Your task to perform on an android device: turn off wifi Image 0: 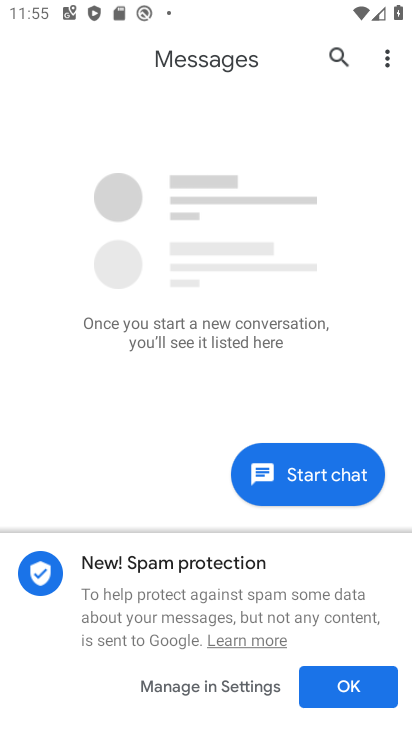
Step 0: press home button
Your task to perform on an android device: turn off wifi Image 1: 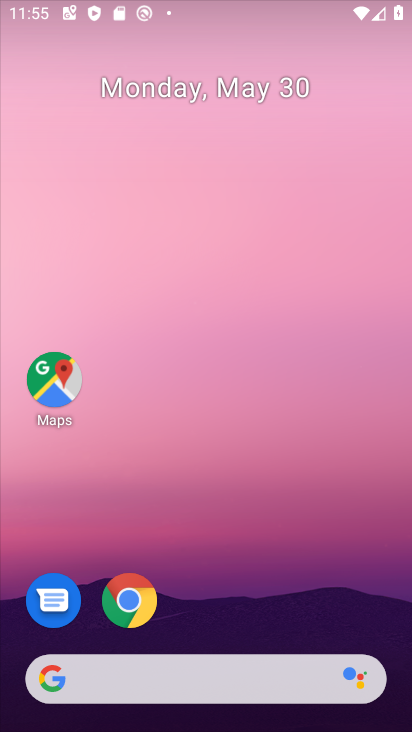
Step 1: drag from (210, 725) to (212, 574)
Your task to perform on an android device: turn off wifi Image 2: 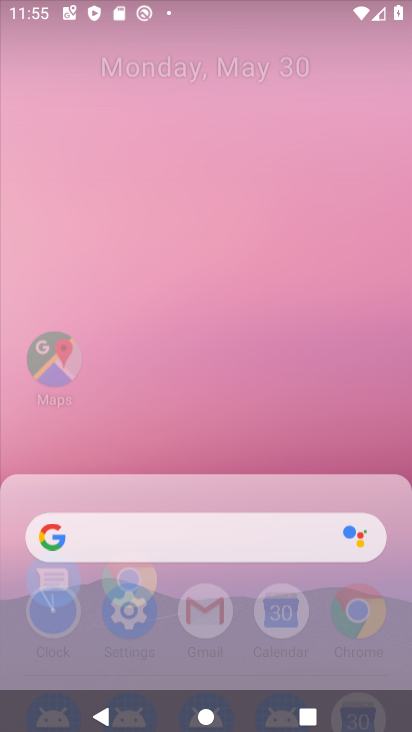
Step 2: drag from (219, 209) to (219, 160)
Your task to perform on an android device: turn off wifi Image 3: 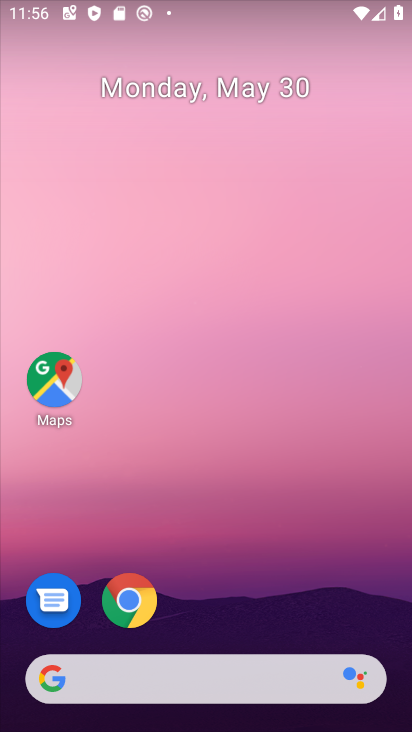
Step 3: drag from (222, 728) to (225, 38)
Your task to perform on an android device: turn off wifi Image 4: 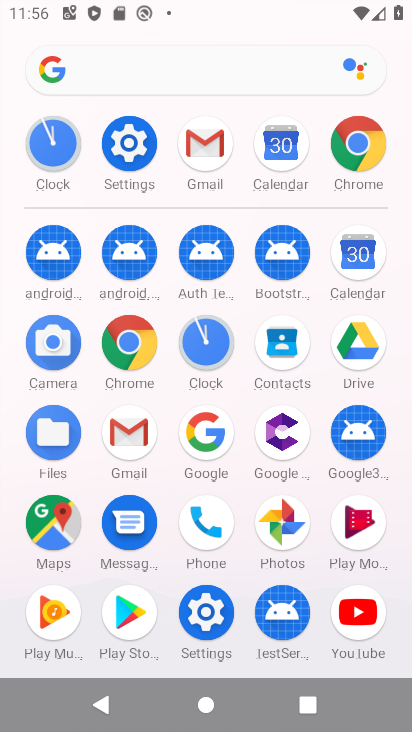
Step 4: click (132, 144)
Your task to perform on an android device: turn off wifi Image 5: 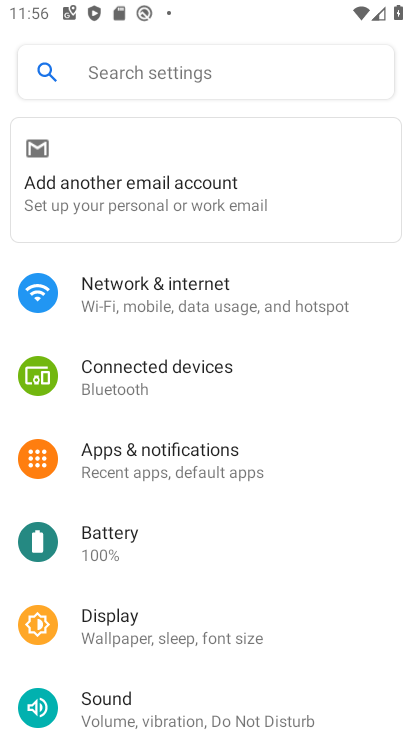
Step 5: click (142, 296)
Your task to perform on an android device: turn off wifi Image 6: 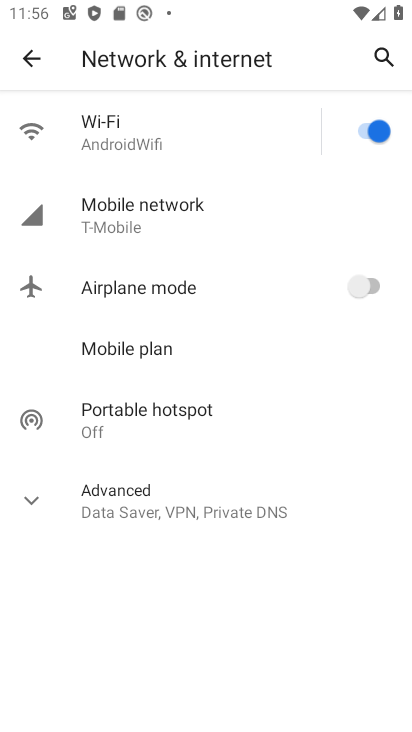
Step 6: click (361, 131)
Your task to perform on an android device: turn off wifi Image 7: 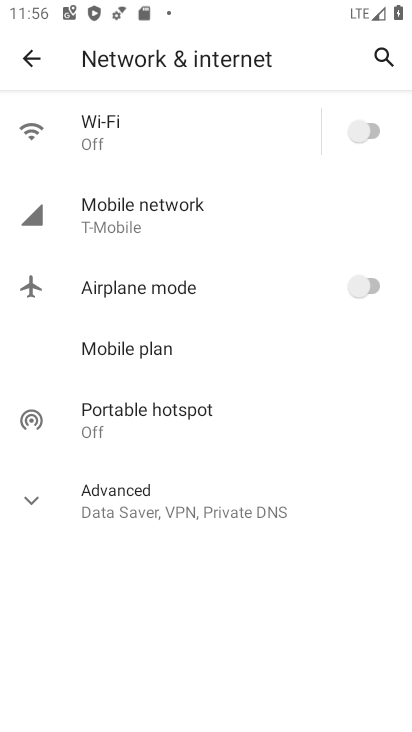
Step 7: task complete